Your task to perform on an android device: add a label to a message in the gmail app Image 0: 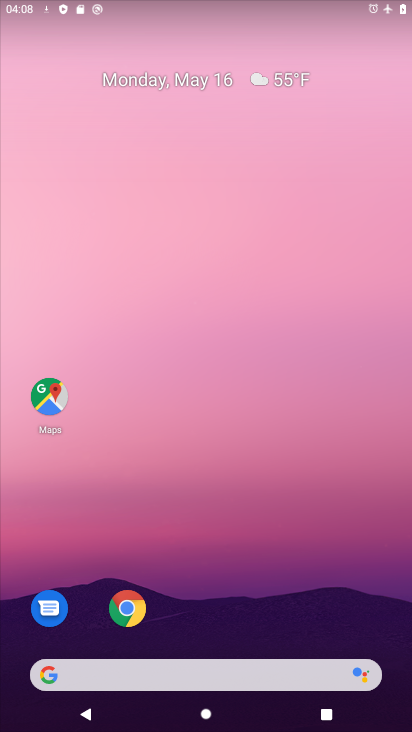
Step 0: drag from (197, 636) to (197, 148)
Your task to perform on an android device: add a label to a message in the gmail app Image 1: 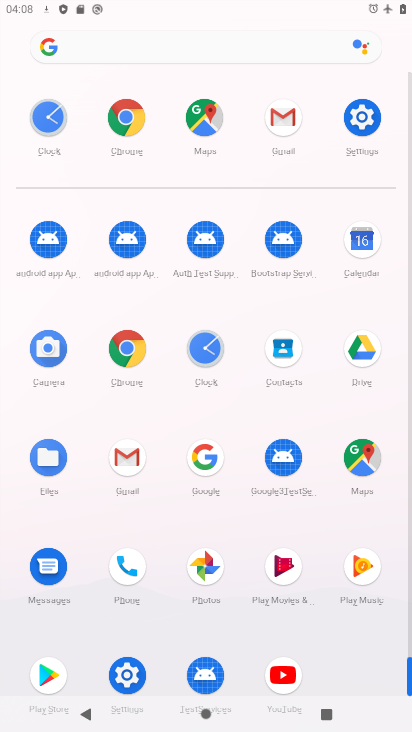
Step 1: click (123, 447)
Your task to perform on an android device: add a label to a message in the gmail app Image 2: 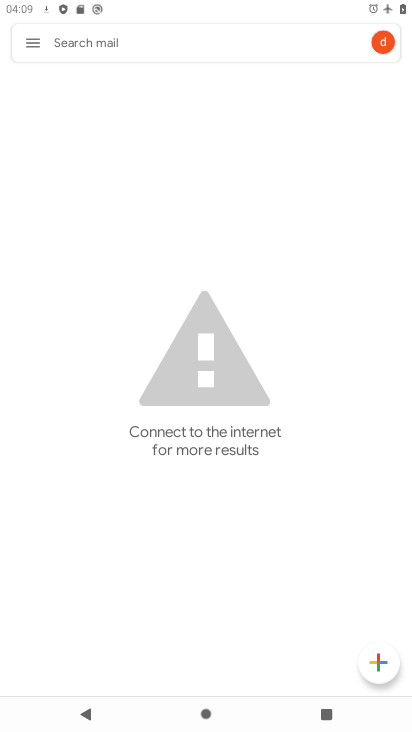
Step 2: click (40, 40)
Your task to perform on an android device: add a label to a message in the gmail app Image 3: 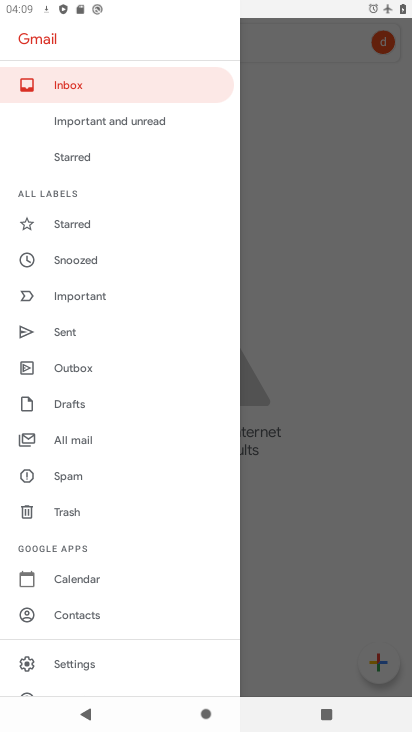
Step 3: click (81, 430)
Your task to perform on an android device: add a label to a message in the gmail app Image 4: 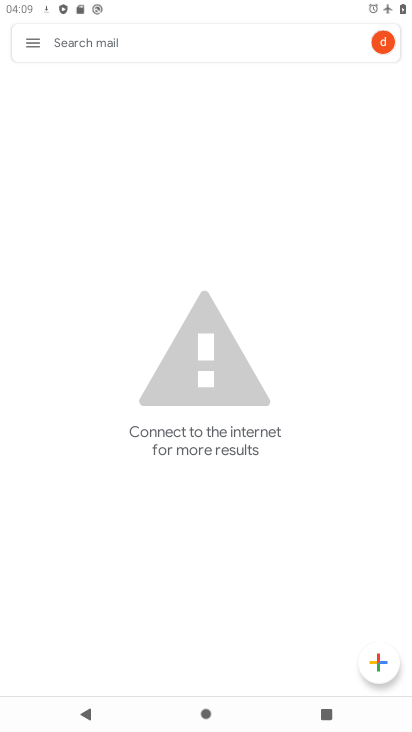
Step 4: task complete